Your task to perform on an android device: open a new tab in the chrome app Image 0: 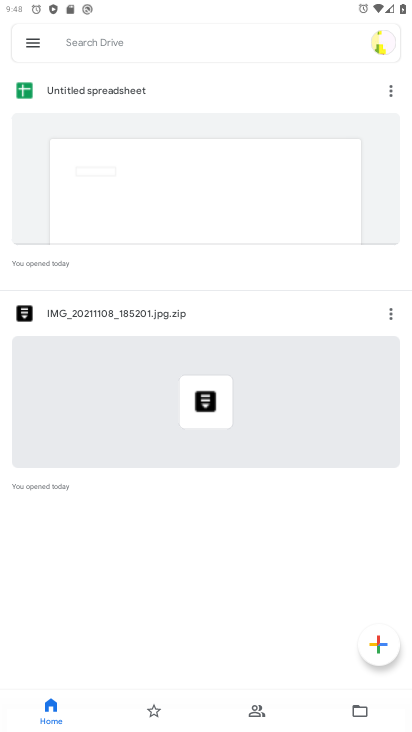
Step 0: press home button
Your task to perform on an android device: open a new tab in the chrome app Image 1: 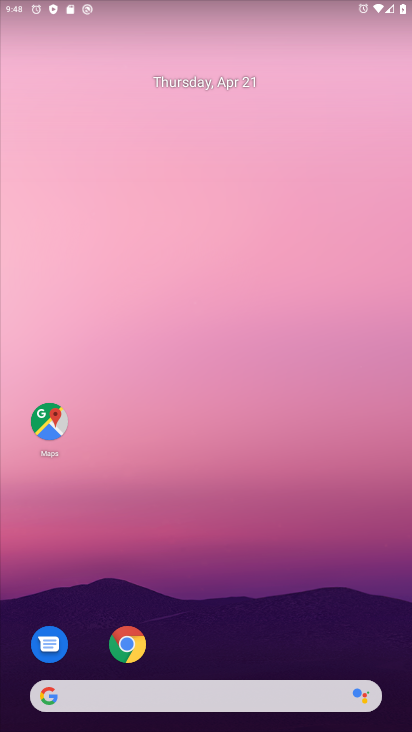
Step 1: click (131, 643)
Your task to perform on an android device: open a new tab in the chrome app Image 2: 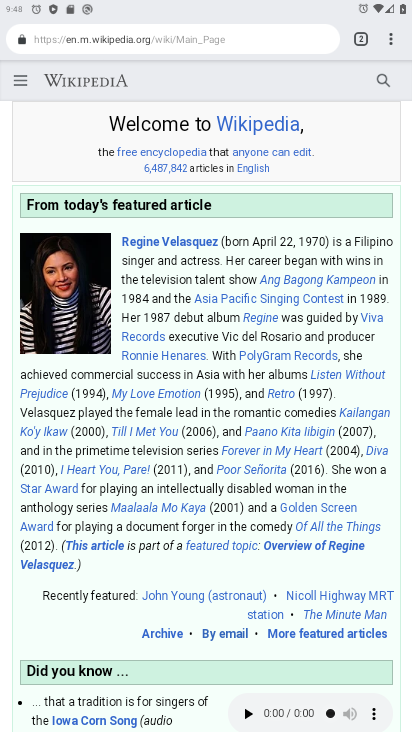
Step 2: click (398, 35)
Your task to perform on an android device: open a new tab in the chrome app Image 3: 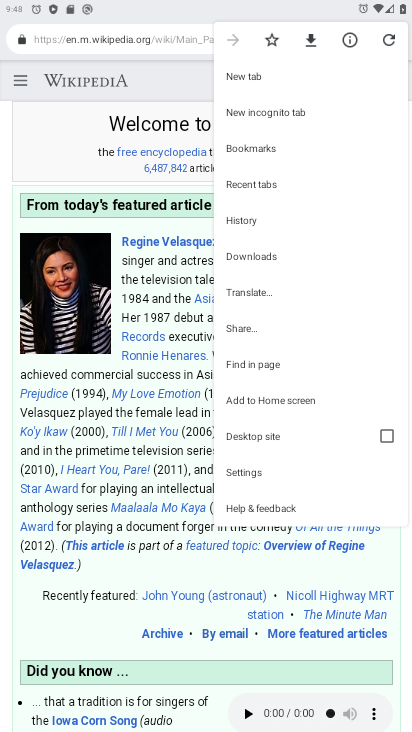
Step 3: click (270, 72)
Your task to perform on an android device: open a new tab in the chrome app Image 4: 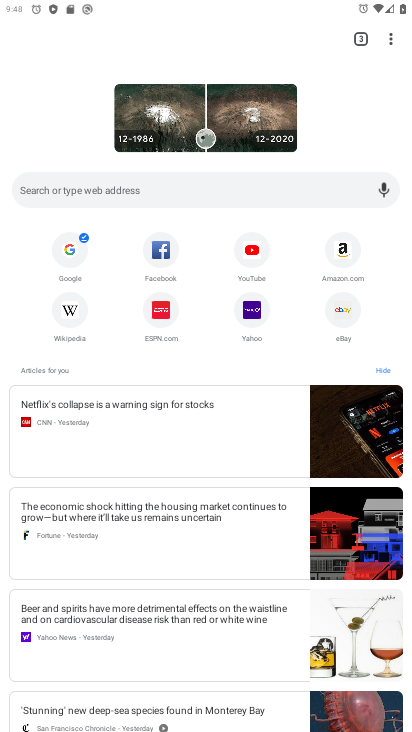
Step 4: task complete